Your task to perform on an android device: uninstall "Flipkart Online Shopping App" Image 0: 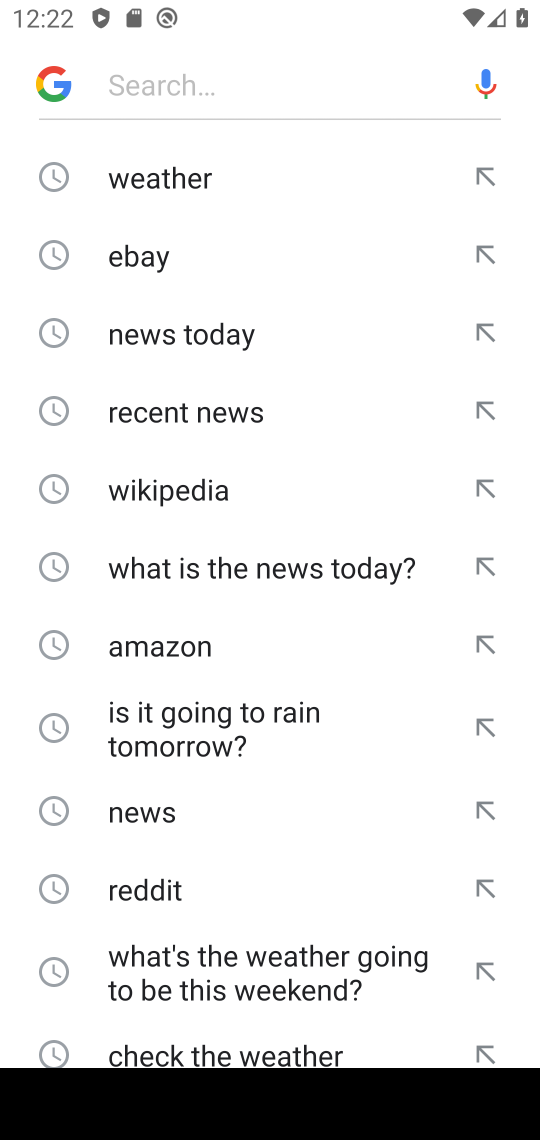
Step 0: press back button
Your task to perform on an android device: uninstall "Flipkart Online Shopping App" Image 1: 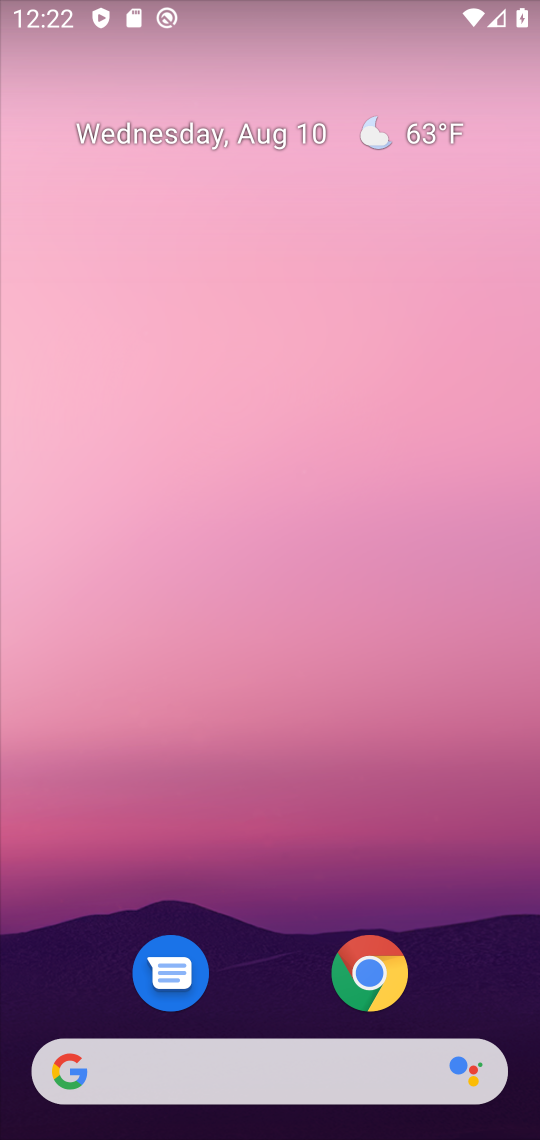
Step 1: drag from (283, 942) to (329, 151)
Your task to perform on an android device: uninstall "Flipkart Online Shopping App" Image 2: 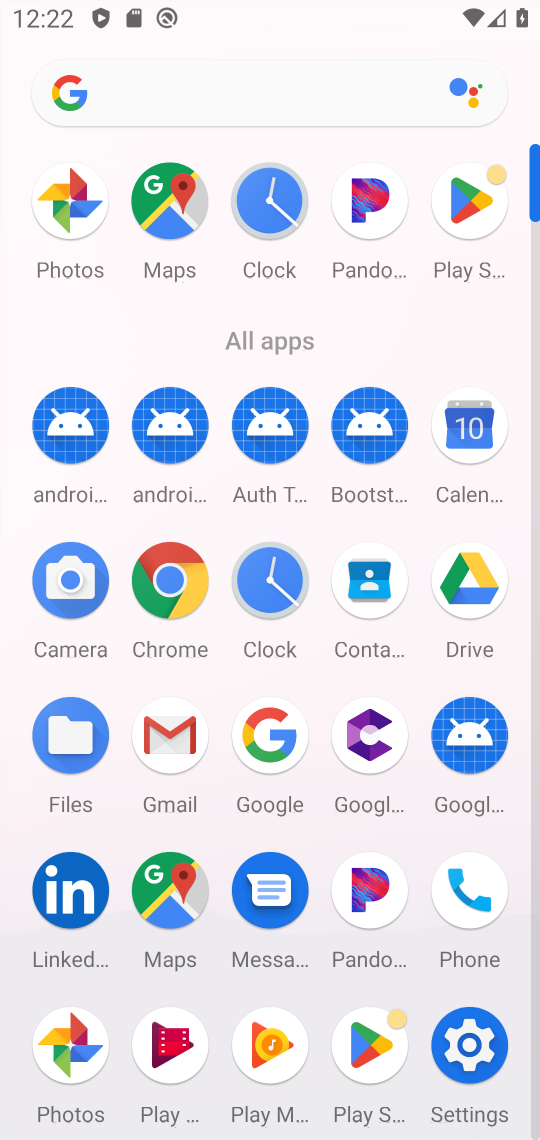
Step 2: click (461, 207)
Your task to perform on an android device: uninstall "Flipkart Online Shopping App" Image 3: 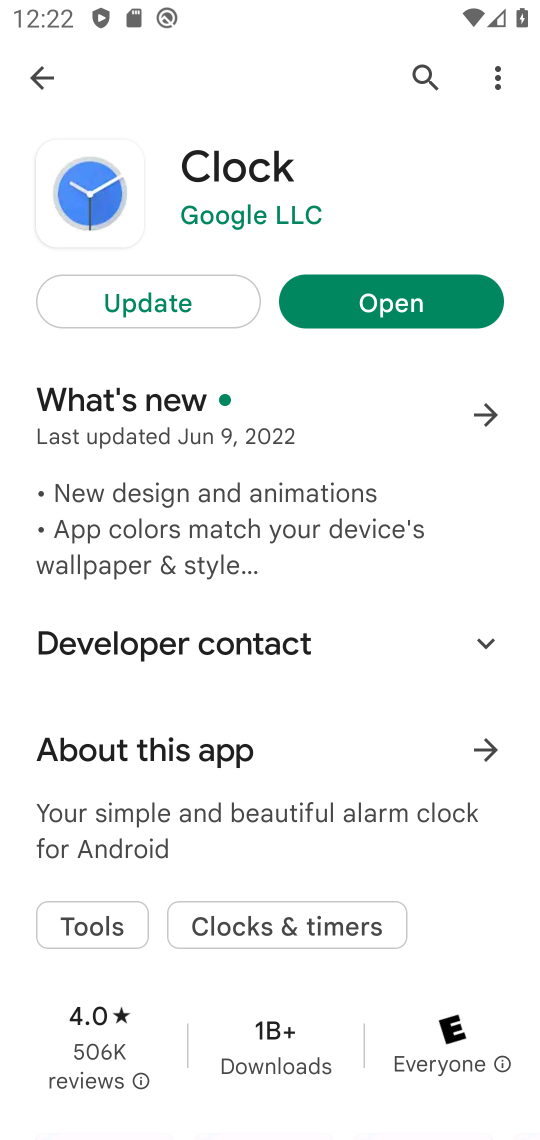
Step 3: click (448, 69)
Your task to perform on an android device: uninstall "Flipkart Online Shopping App" Image 4: 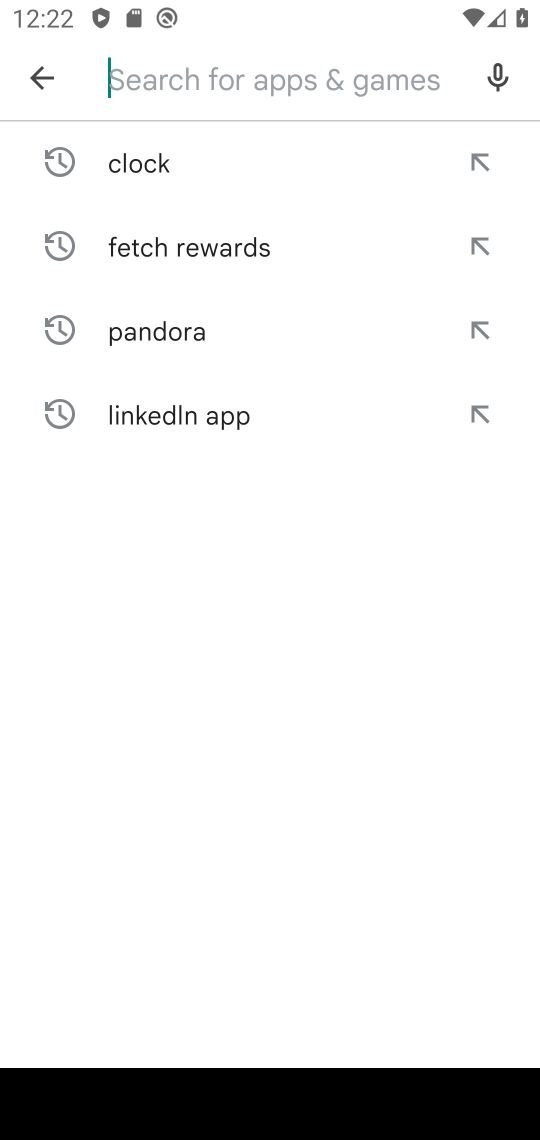
Step 4: click (147, 79)
Your task to perform on an android device: uninstall "Flipkart Online Shopping App" Image 5: 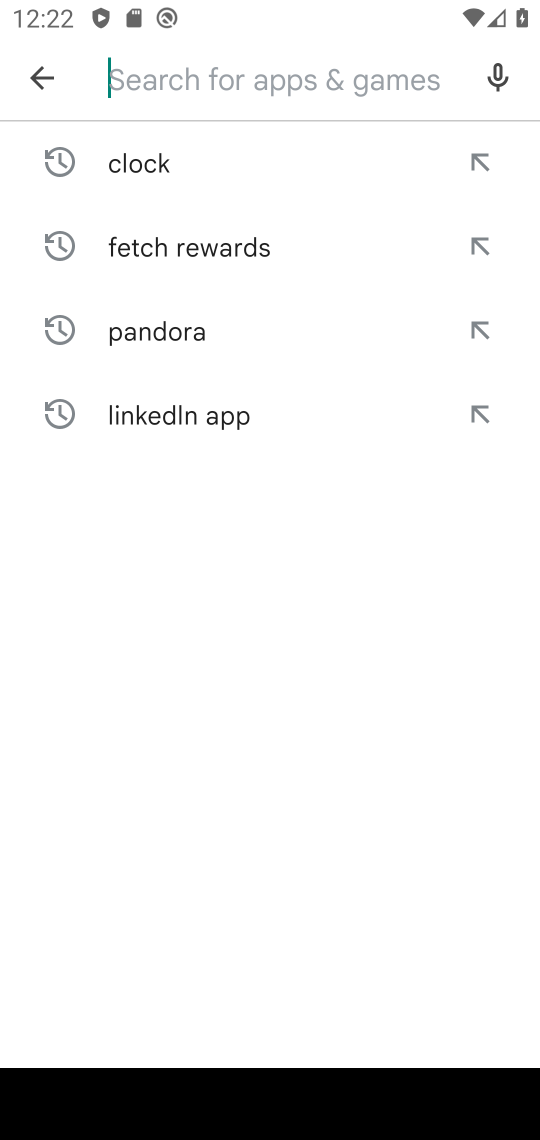
Step 5: click (153, 87)
Your task to perform on an android device: uninstall "Flipkart Online Shopping App" Image 6: 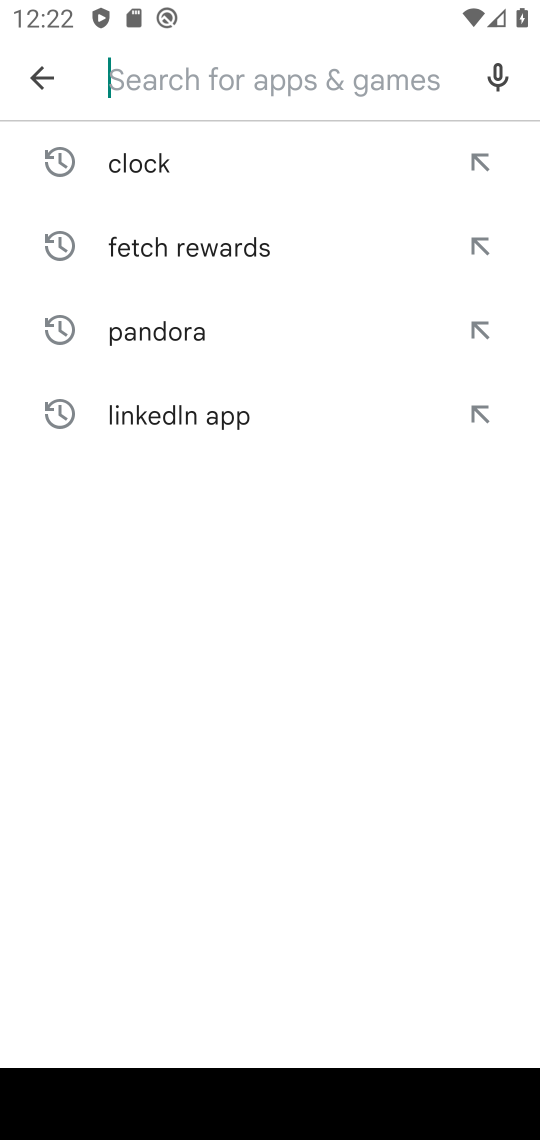
Step 6: type "Flipkart Online Shopping App"
Your task to perform on an android device: uninstall "Flipkart Online Shopping App" Image 7: 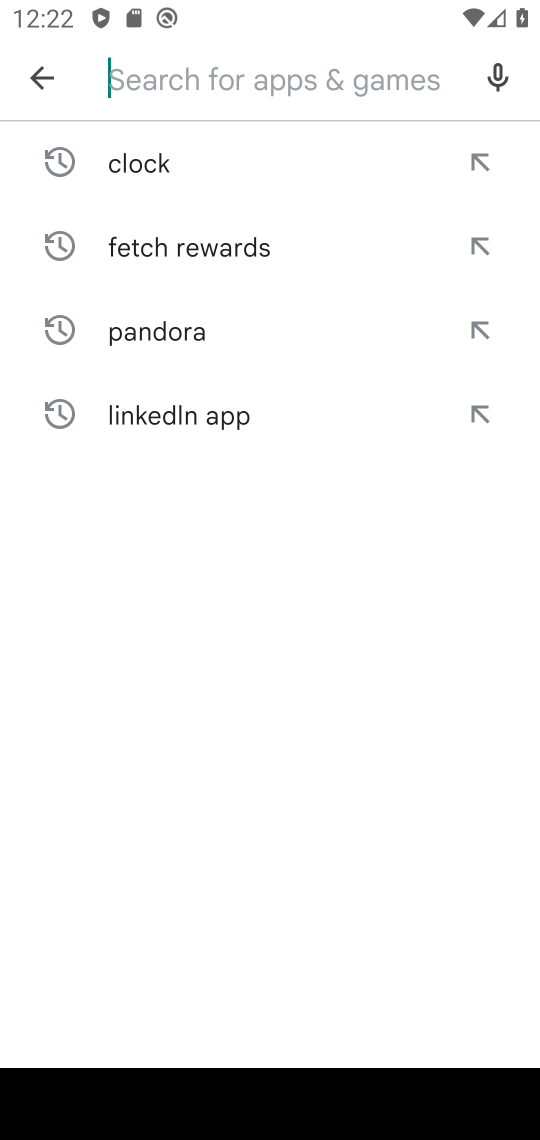
Step 7: click (245, 541)
Your task to perform on an android device: uninstall "Flipkart Online Shopping App" Image 8: 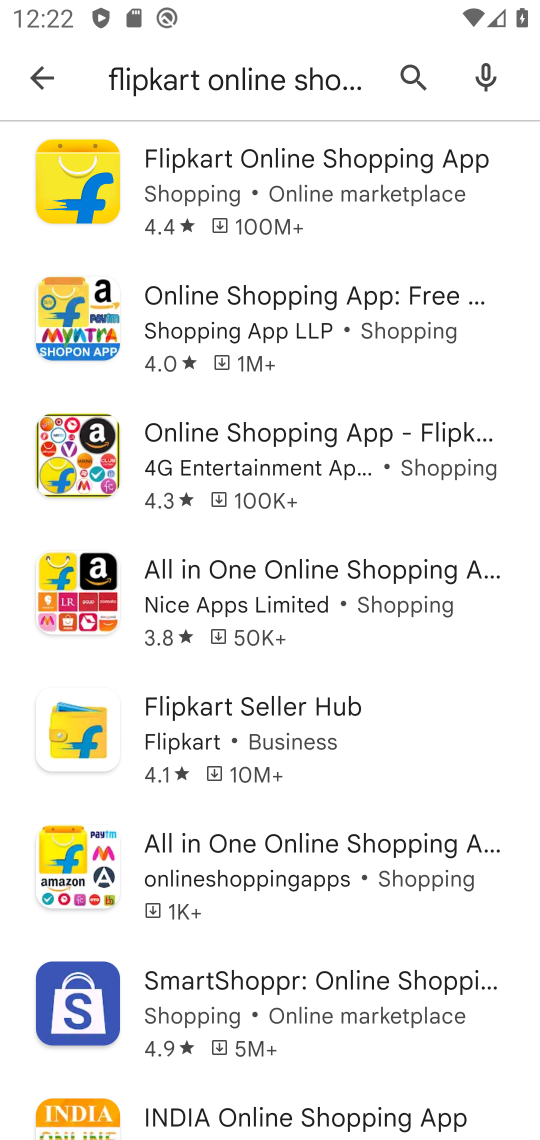
Step 8: click (296, 196)
Your task to perform on an android device: uninstall "Flipkart Online Shopping App" Image 9: 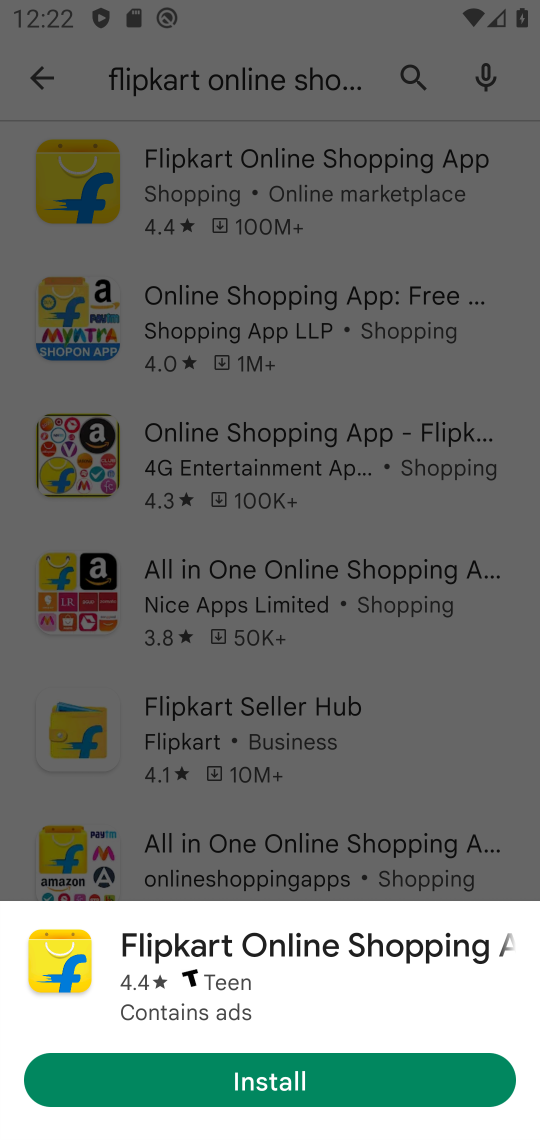
Step 9: task complete